Your task to perform on an android device: Open the map Image 0: 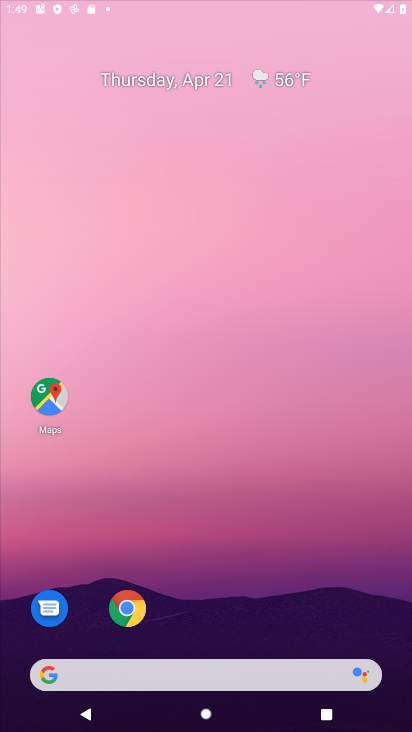
Step 0: drag from (186, 328) to (165, 3)
Your task to perform on an android device: Open the map Image 1: 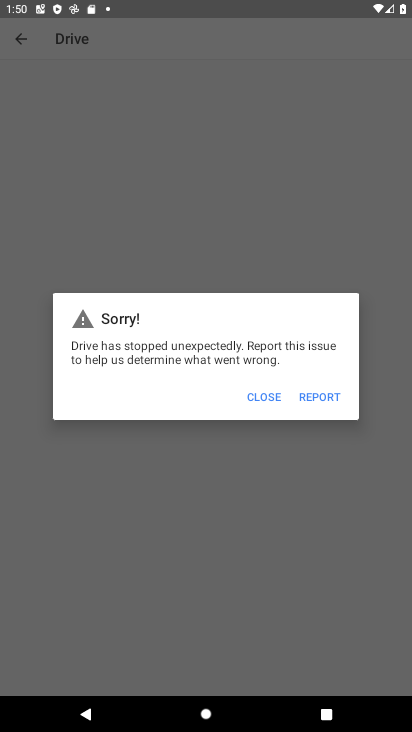
Step 1: press home button
Your task to perform on an android device: Open the map Image 2: 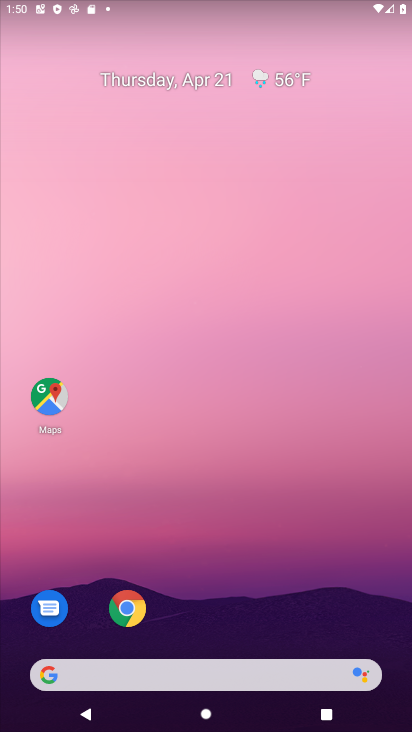
Step 2: click (49, 397)
Your task to perform on an android device: Open the map Image 3: 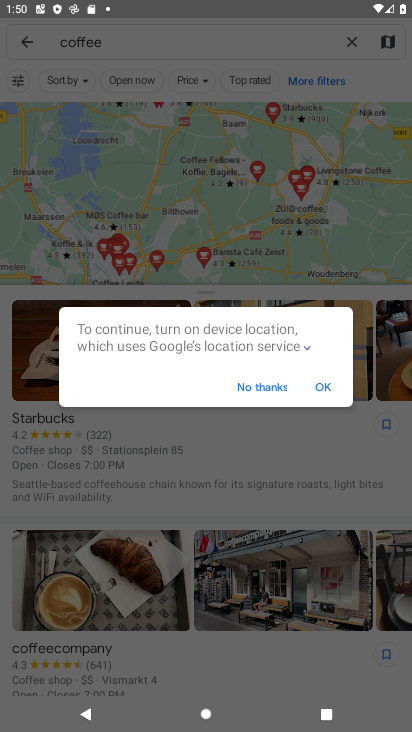
Step 3: task complete